Your task to perform on an android device: Show the shopping cart on costco. Search for rayovac triple a on costco, select the first entry, and add it to the cart. Image 0: 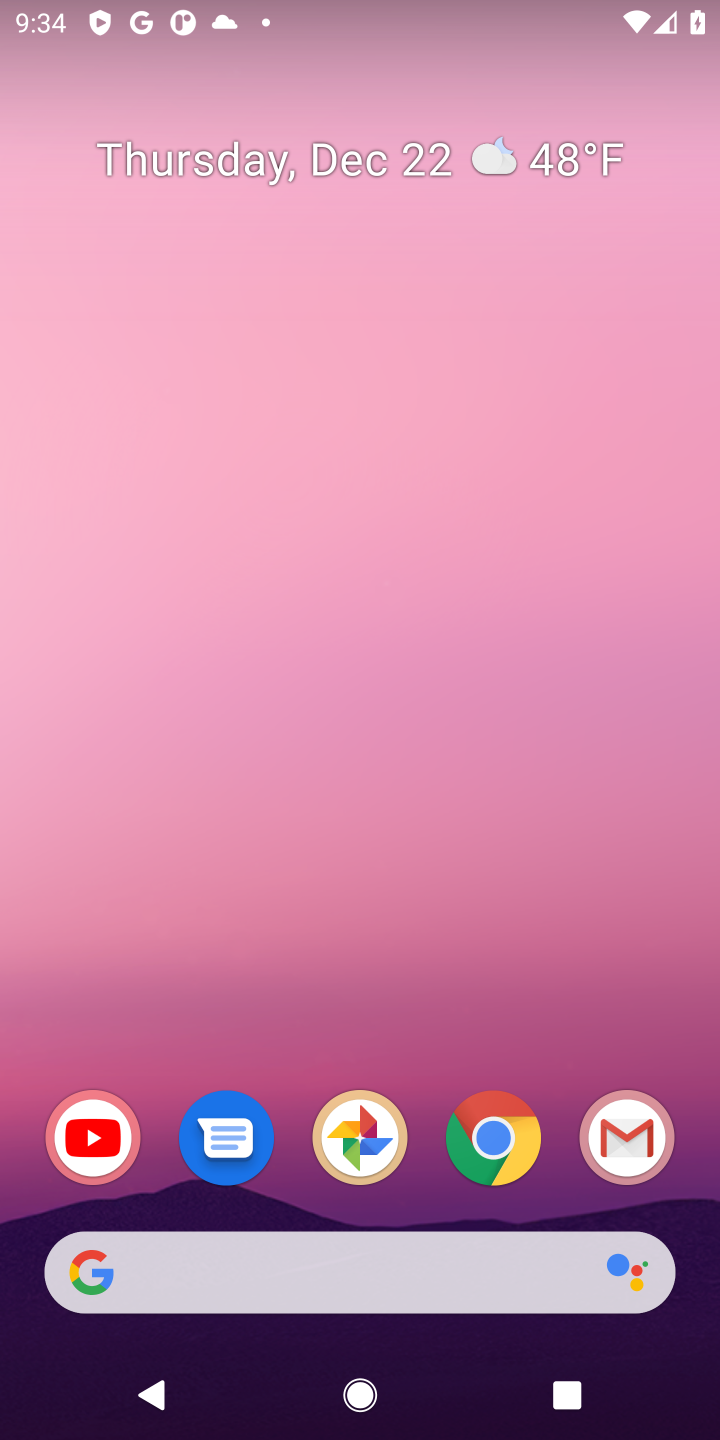
Step 0: click (504, 1144)
Your task to perform on an android device: Show the shopping cart on costco. Search for rayovac triple a on costco, select the first entry, and add it to the cart. Image 1: 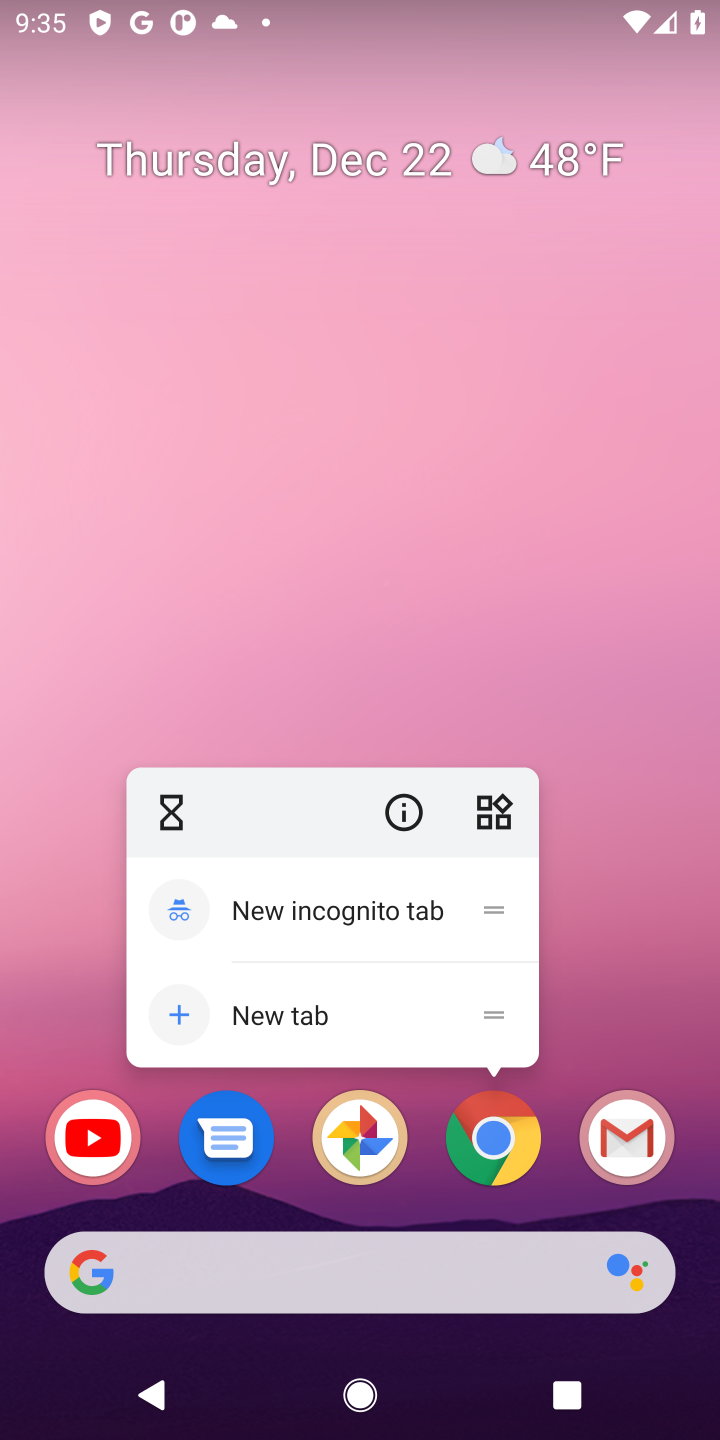
Step 1: click (477, 1155)
Your task to perform on an android device: Show the shopping cart on costco. Search for rayovac triple a on costco, select the first entry, and add it to the cart. Image 2: 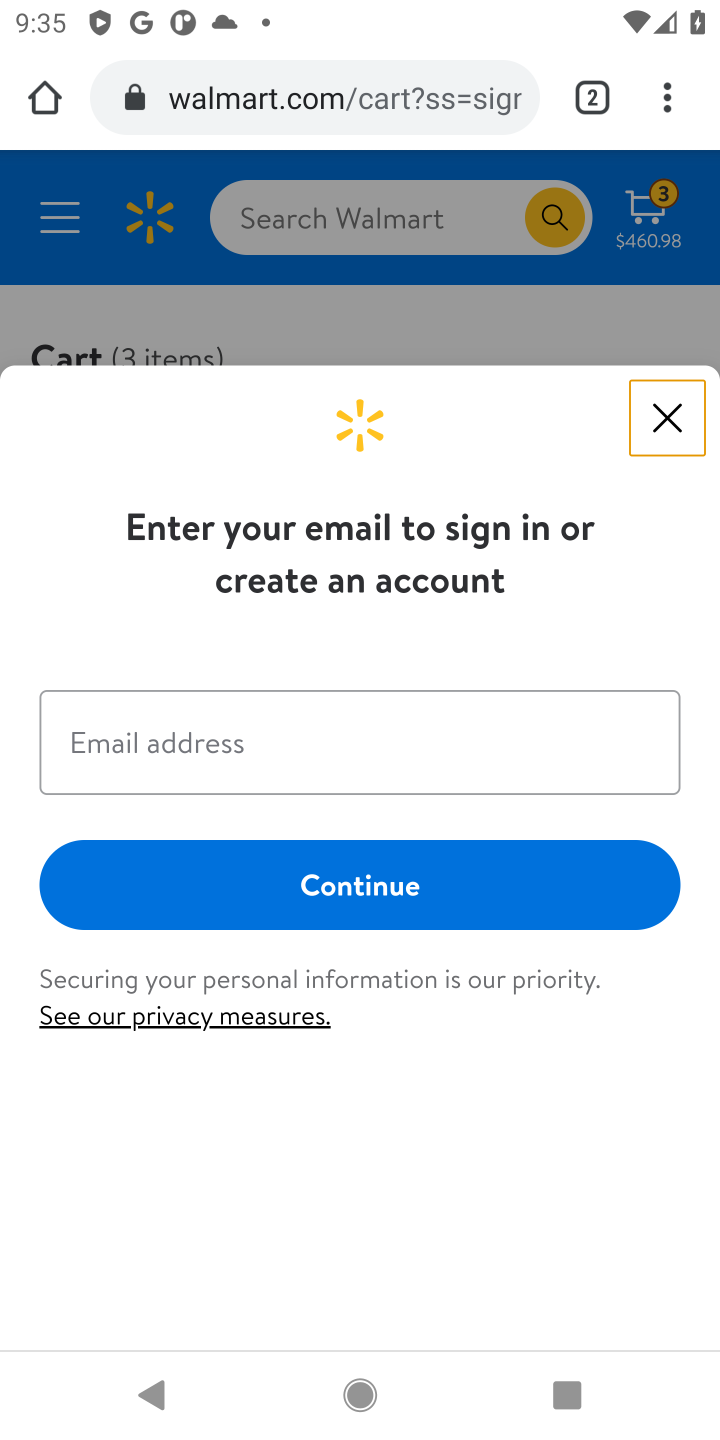
Step 2: click (293, 93)
Your task to perform on an android device: Show the shopping cart on costco. Search for rayovac triple a on costco, select the first entry, and add it to the cart. Image 3: 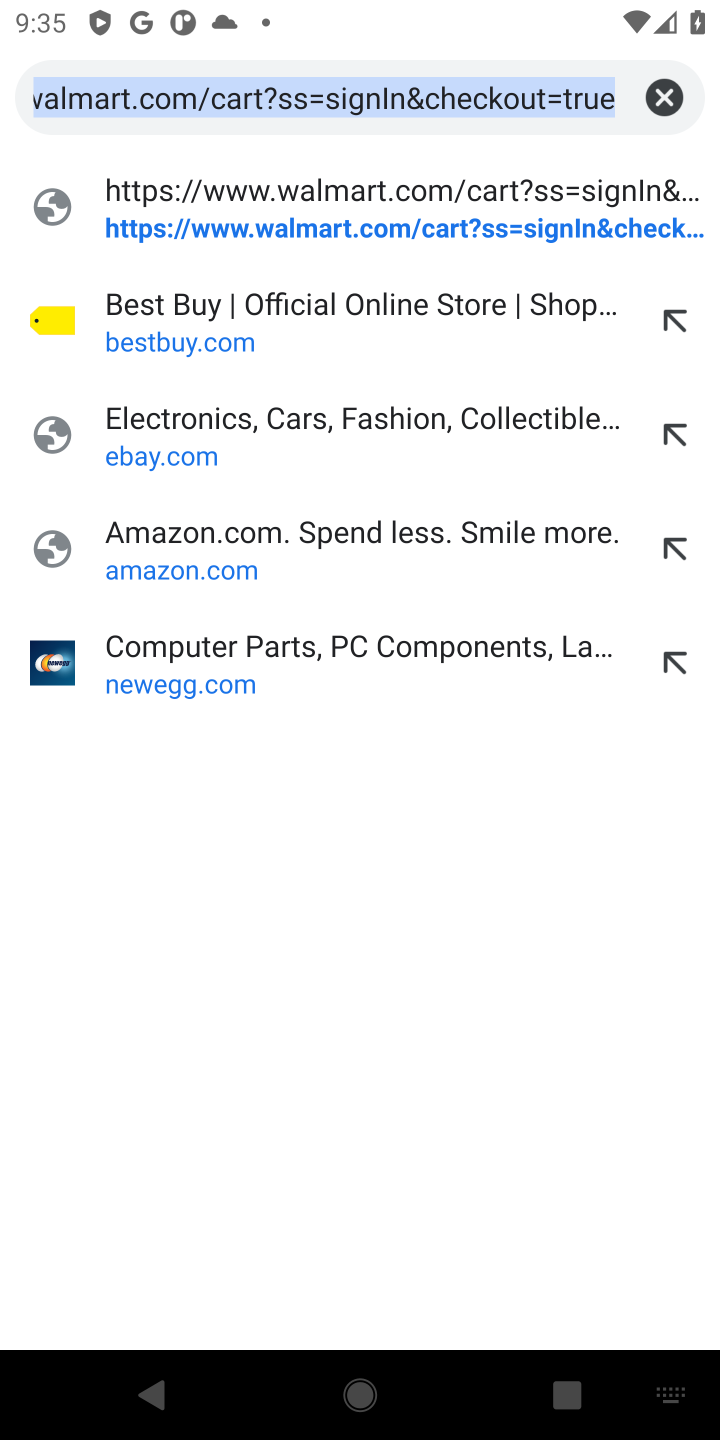
Step 3: type "costco"
Your task to perform on an android device: Show the shopping cart on costco. Search for rayovac triple a on costco, select the first entry, and add it to the cart. Image 4: 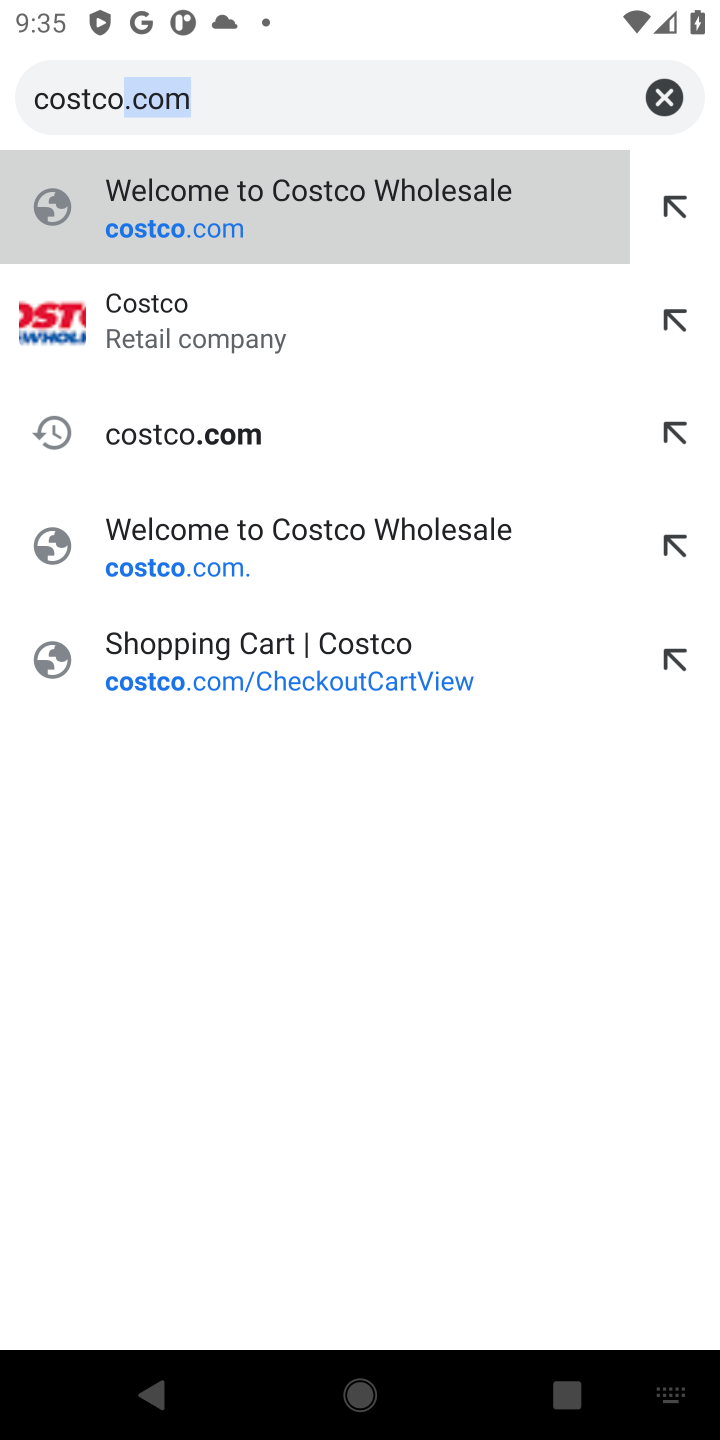
Step 4: click (242, 234)
Your task to perform on an android device: Show the shopping cart on costco. Search for rayovac triple a on costco, select the first entry, and add it to the cart. Image 5: 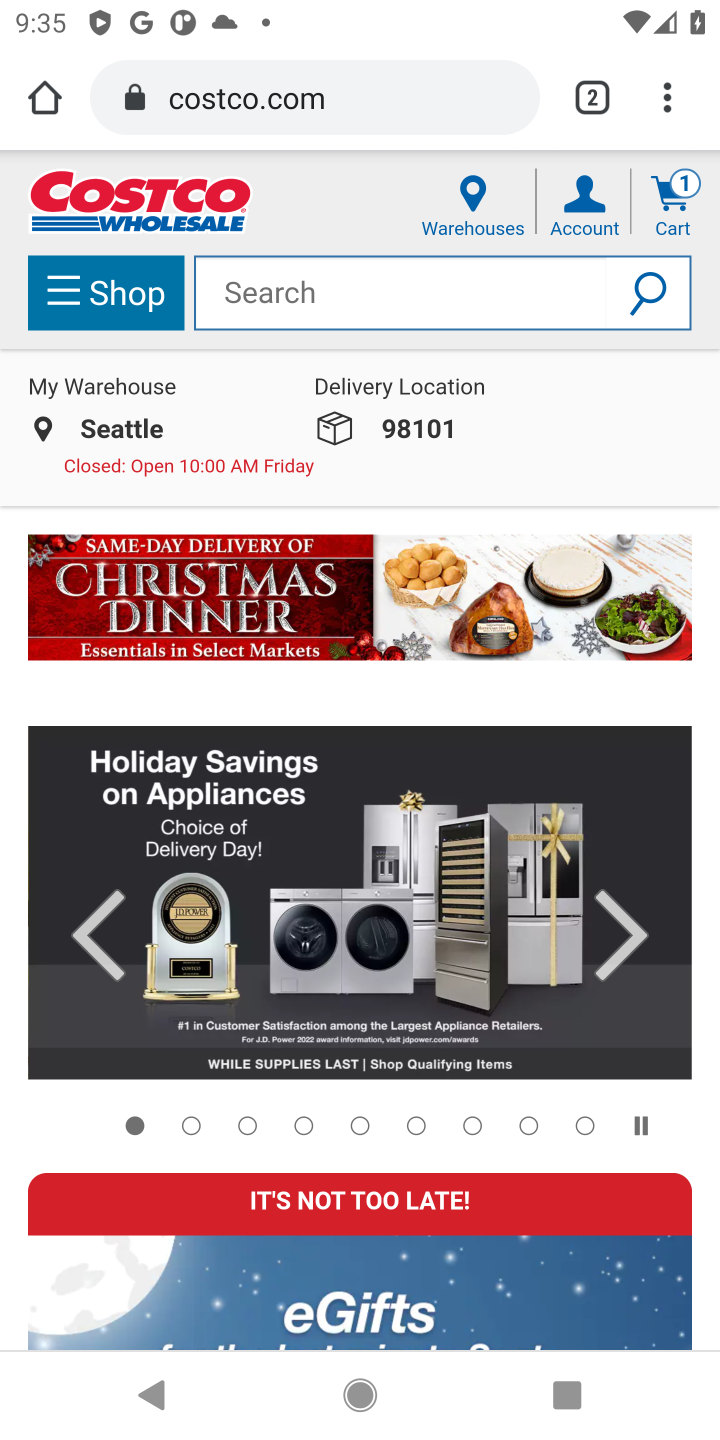
Step 5: click (273, 304)
Your task to perform on an android device: Show the shopping cart on costco. Search for rayovac triple a on costco, select the first entry, and add it to the cart. Image 6: 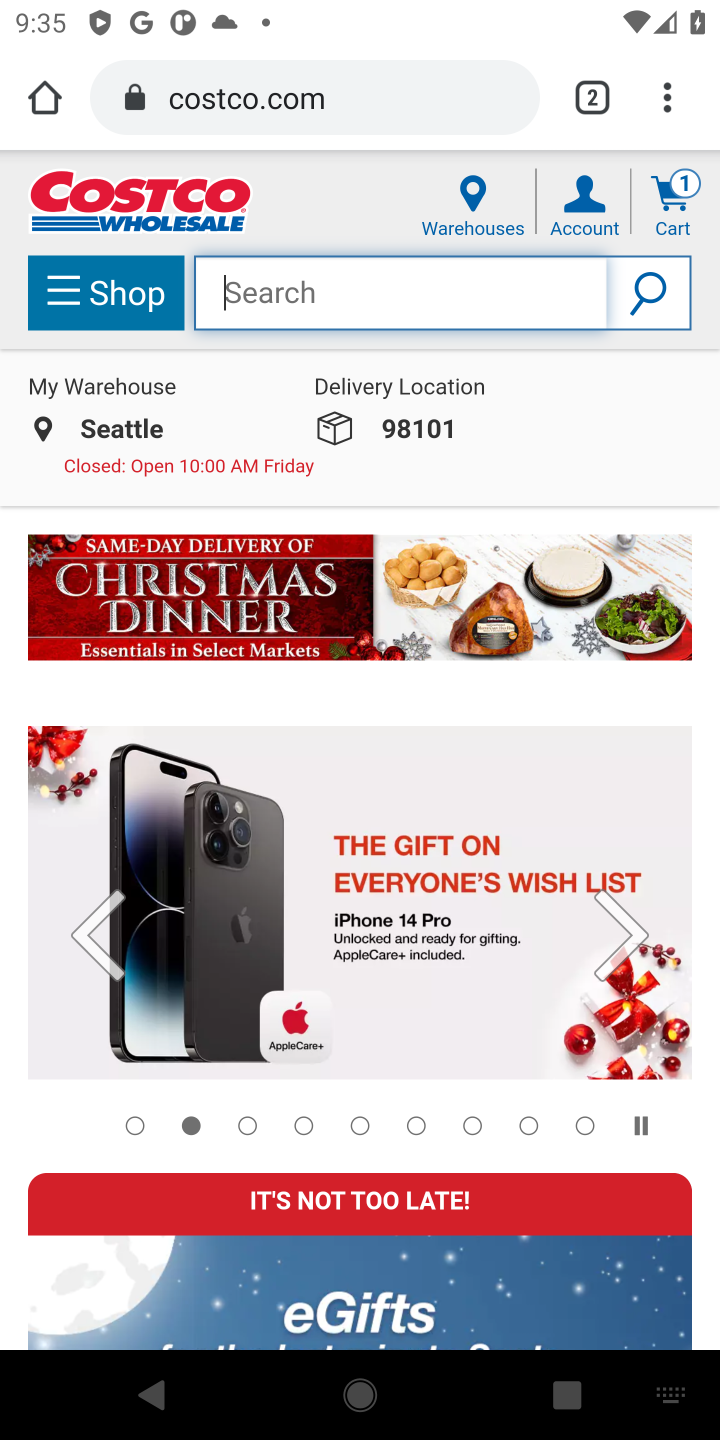
Step 6: type "rayovac triple a"
Your task to perform on an android device: Show the shopping cart on costco. Search for rayovac triple a on costco, select the first entry, and add it to the cart. Image 7: 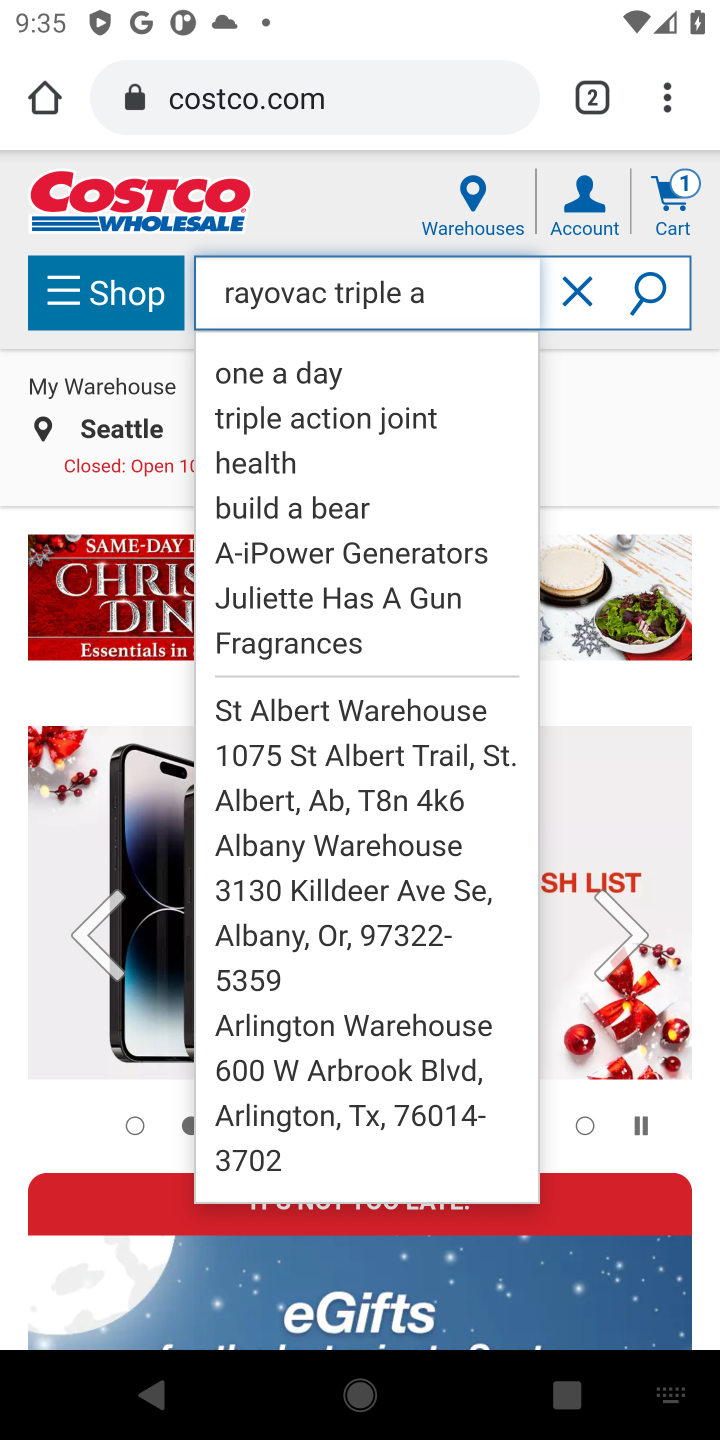
Step 7: click (658, 300)
Your task to perform on an android device: Show the shopping cart on costco. Search for rayovac triple a on costco, select the first entry, and add it to the cart. Image 8: 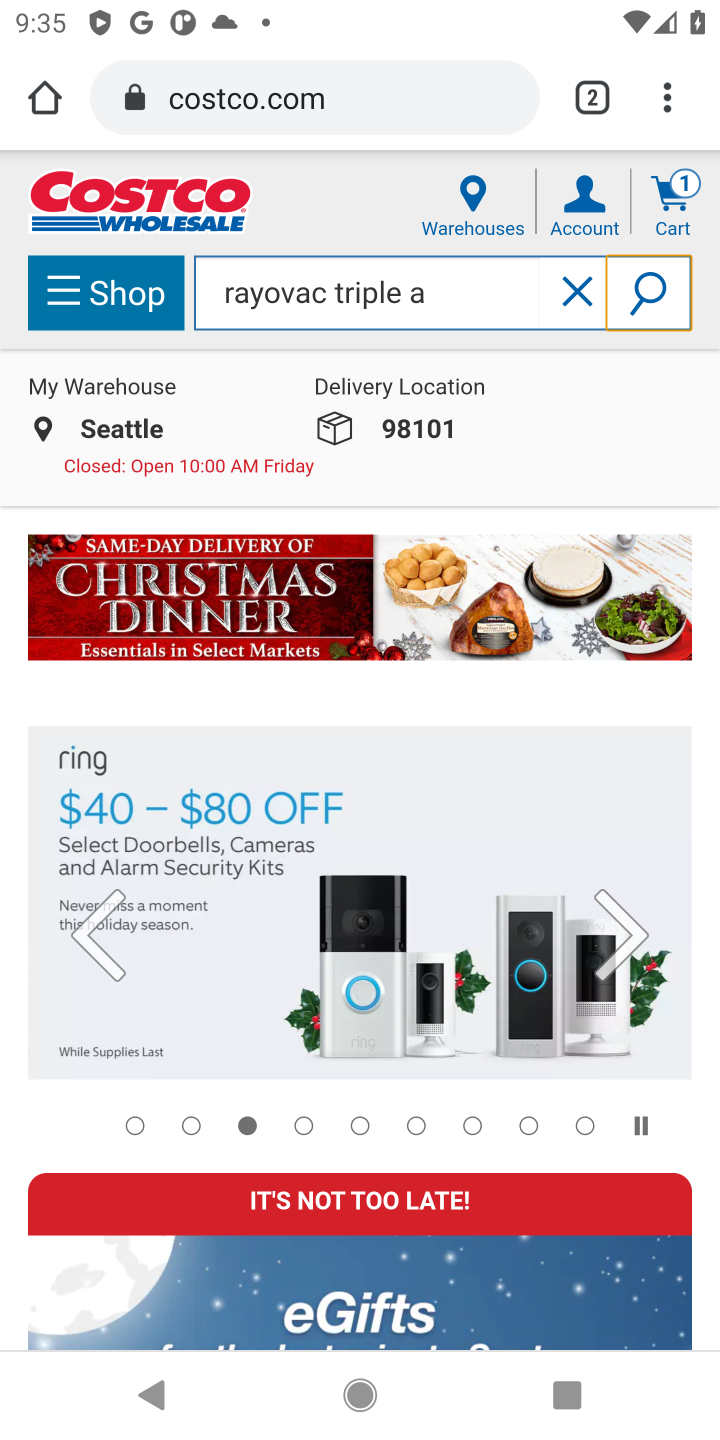
Step 8: click (658, 303)
Your task to perform on an android device: Show the shopping cart on costco. Search for rayovac triple a on costco, select the first entry, and add it to the cart. Image 9: 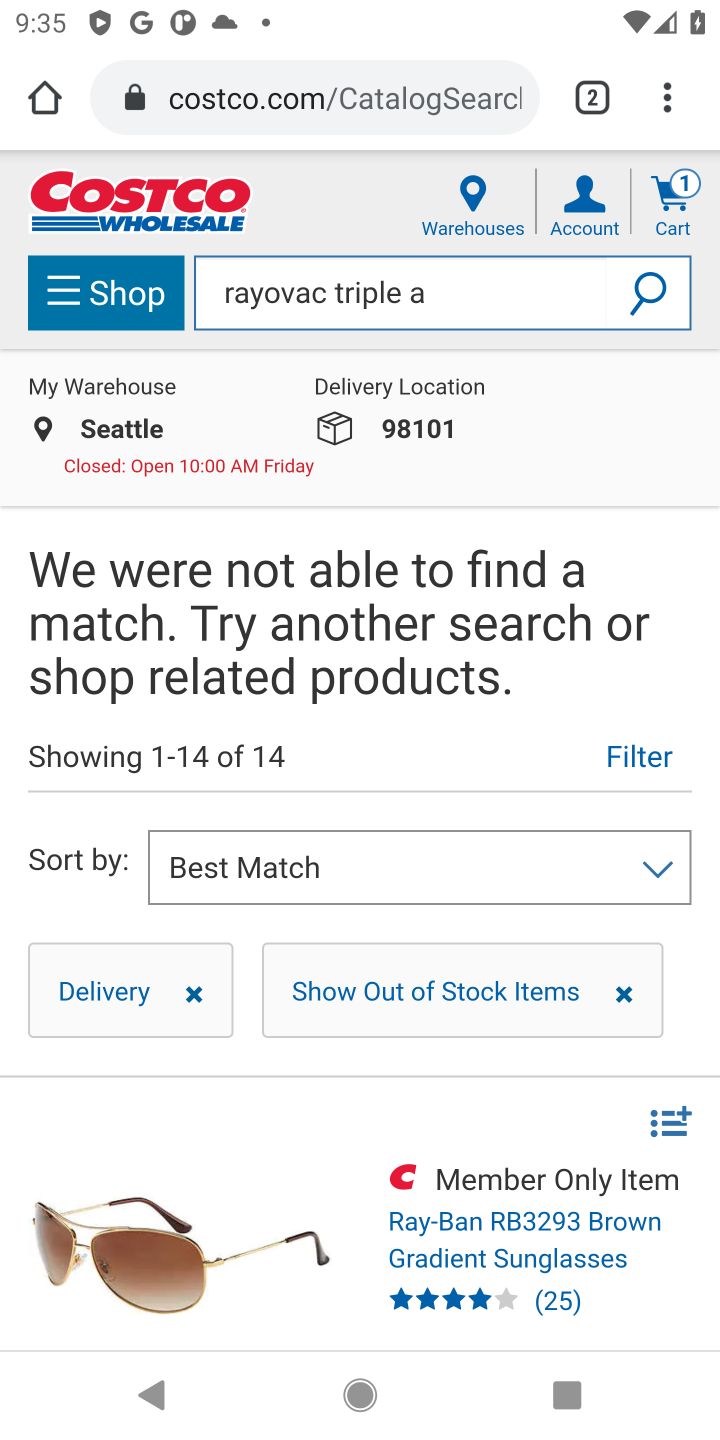
Step 9: task complete